Your task to perform on an android device: find photos in the google photos app Image 0: 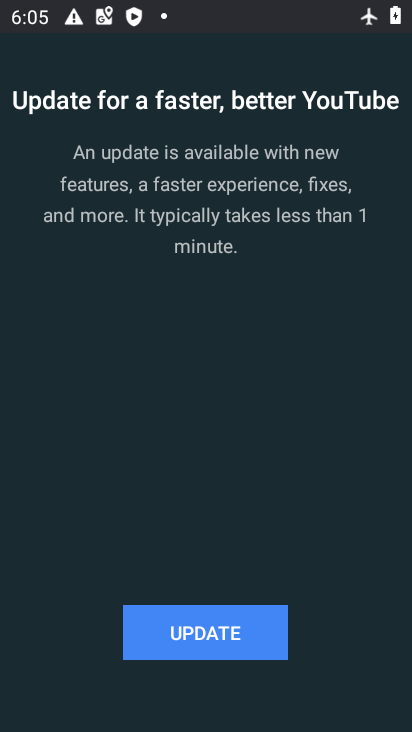
Step 0: press home button
Your task to perform on an android device: find photos in the google photos app Image 1: 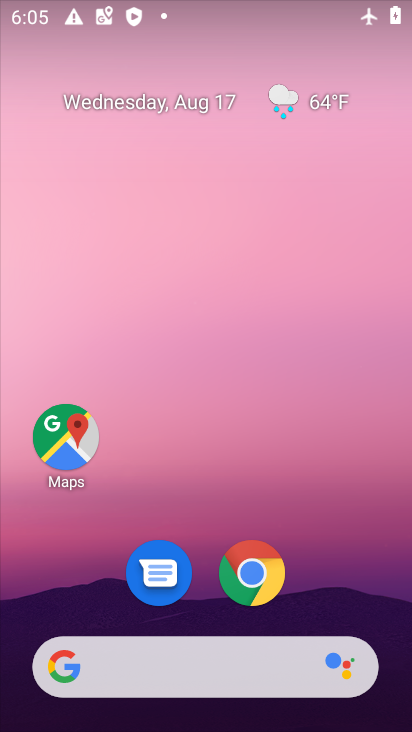
Step 1: drag from (292, 574) to (249, 188)
Your task to perform on an android device: find photos in the google photos app Image 2: 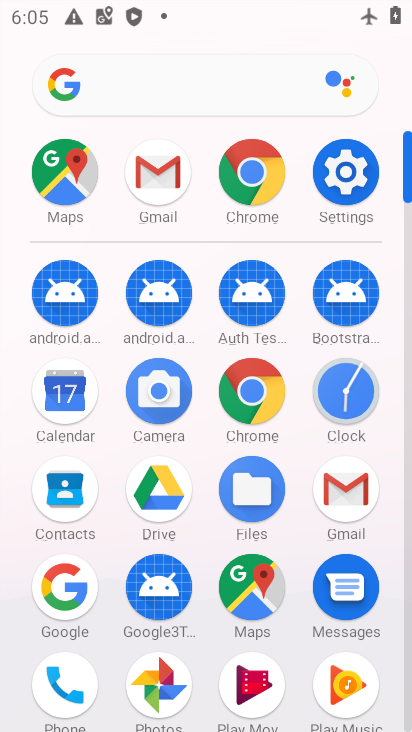
Step 2: click (170, 672)
Your task to perform on an android device: find photos in the google photos app Image 3: 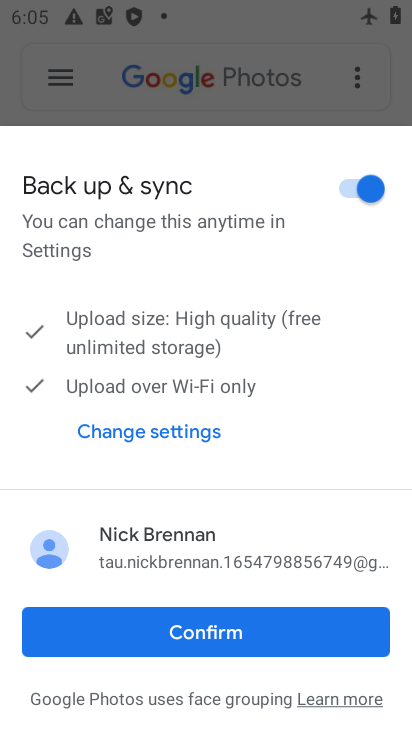
Step 3: click (163, 648)
Your task to perform on an android device: find photos in the google photos app Image 4: 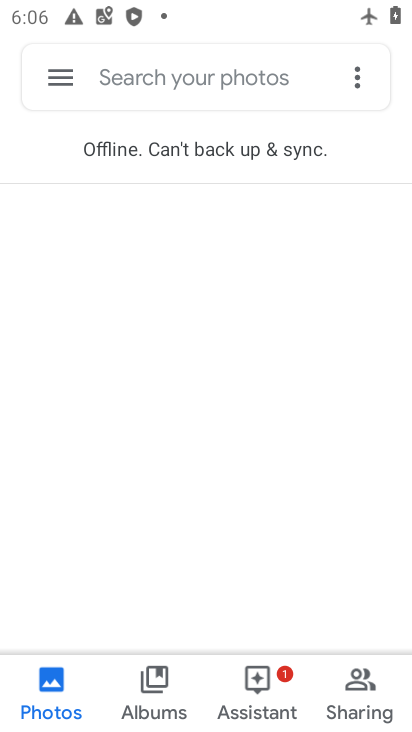
Step 4: task complete